Your task to perform on an android device: Open Reddit.com Image 0: 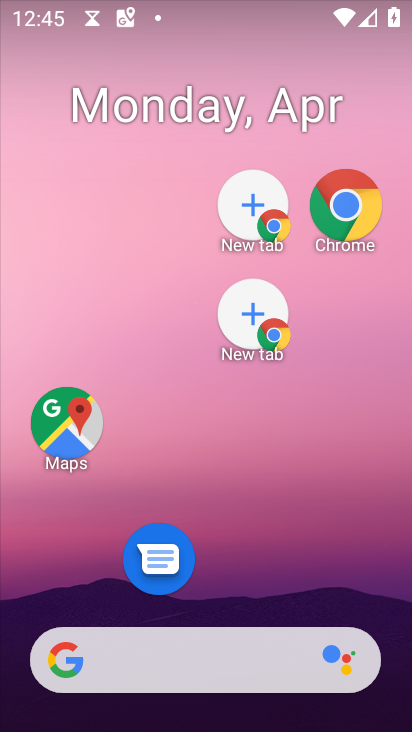
Step 0: click (349, 199)
Your task to perform on an android device: Open Reddit.com Image 1: 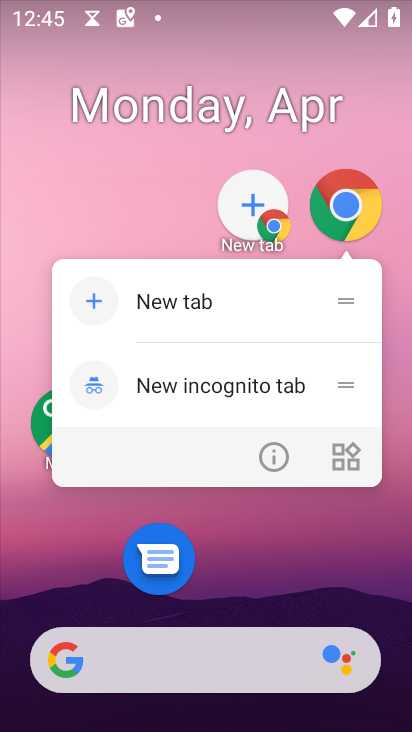
Step 1: click (266, 464)
Your task to perform on an android device: Open Reddit.com Image 2: 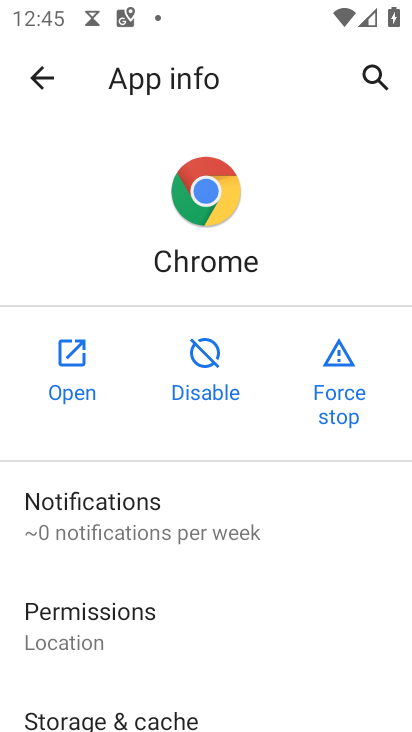
Step 2: click (74, 370)
Your task to perform on an android device: Open Reddit.com Image 3: 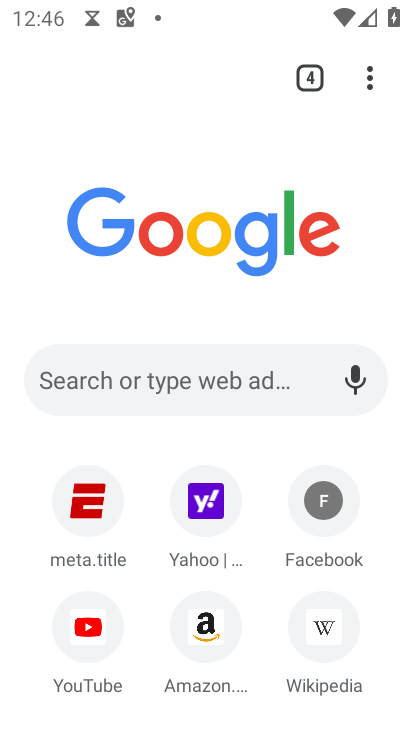
Step 3: click (148, 385)
Your task to perform on an android device: Open Reddit.com Image 4: 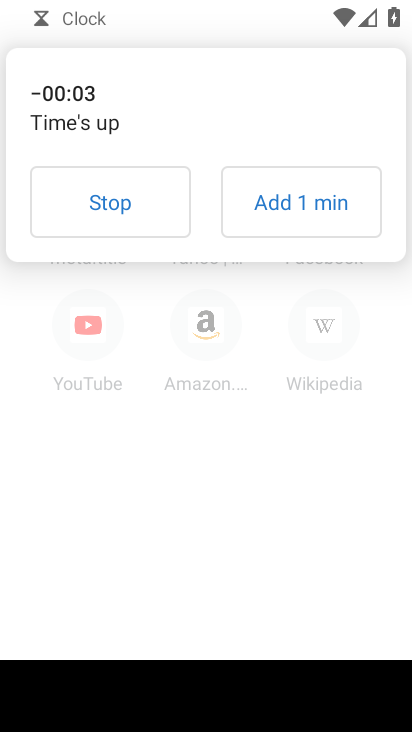
Step 4: click (118, 208)
Your task to perform on an android device: Open Reddit.com Image 5: 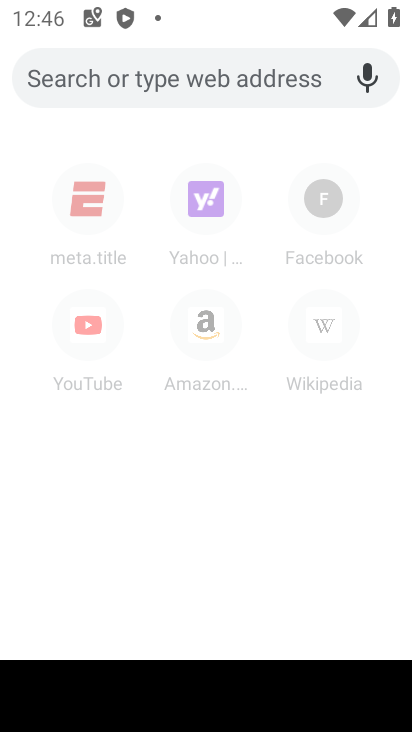
Step 5: type "Reddit.com"
Your task to perform on an android device: Open Reddit.com Image 6: 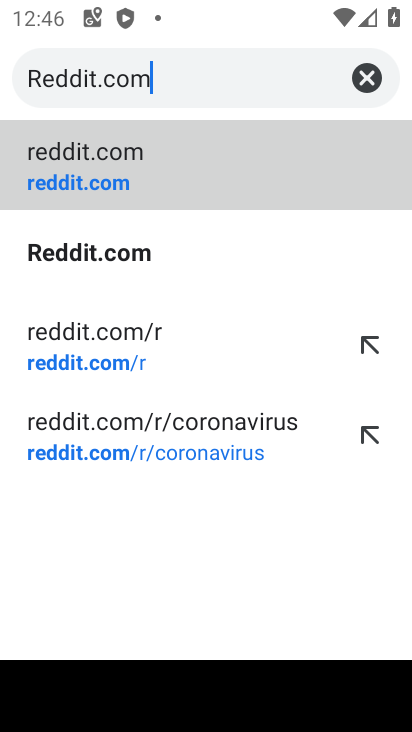
Step 6: type ""
Your task to perform on an android device: Open Reddit.com Image 7: 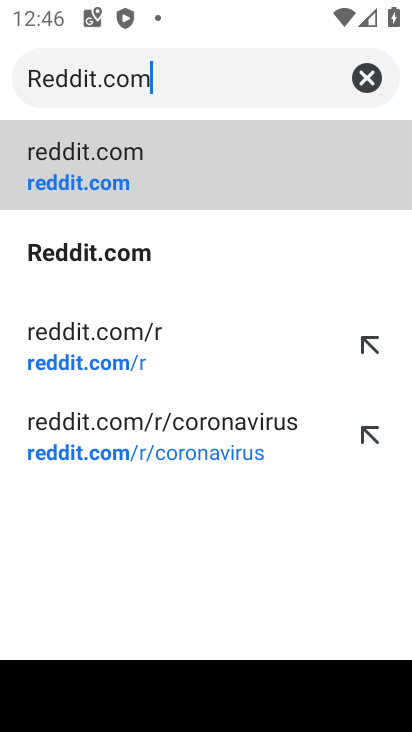
Step 7: click (130, 195)
Your task to perform on an android device: Open Reddit.com Image 8: 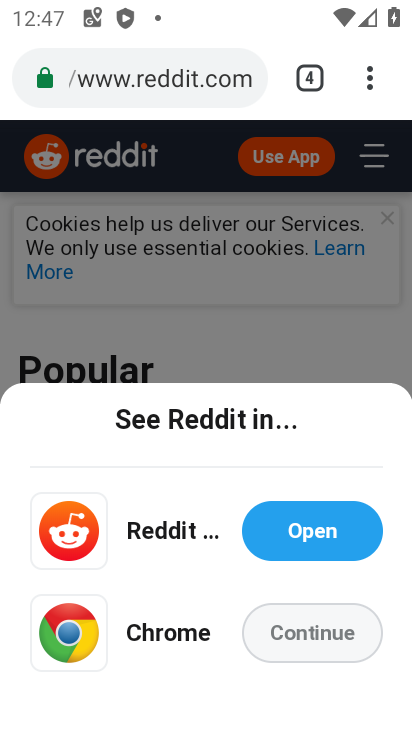
Step 8: click (183, 633)
Your task to perform on an android device: Open Reddit.com Image 9: 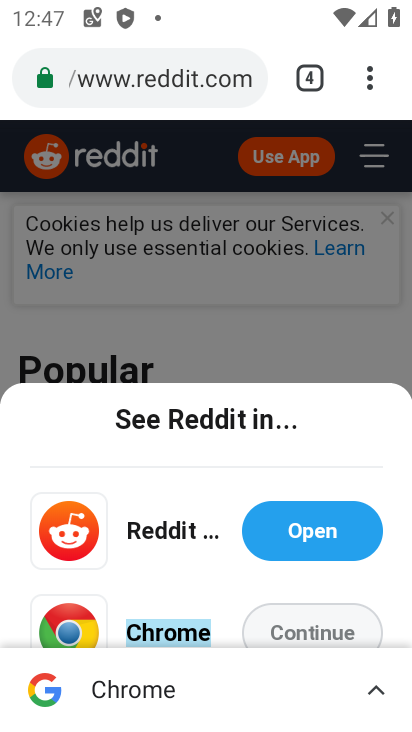
Step 9: click (183, 633)
Your task to perform on an android device: Open Reddit.com Image 10: 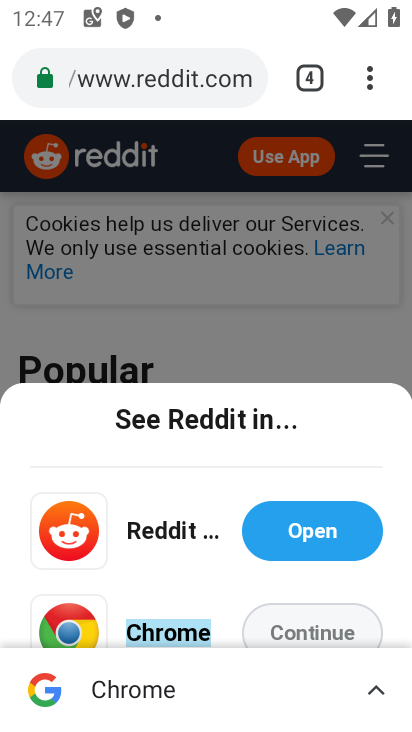
Step 10: click (234, 332)
Your task to perform on an android device: Open Reddit.com Image 11: 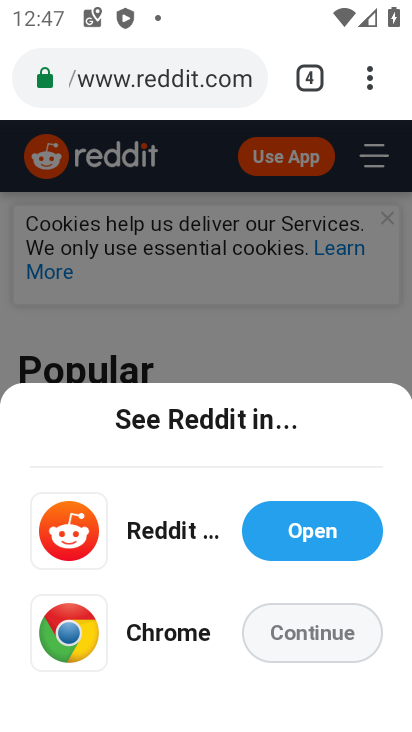
Step 11: task complete